Your task to perform on an android device: Go to sound settings Image 0: 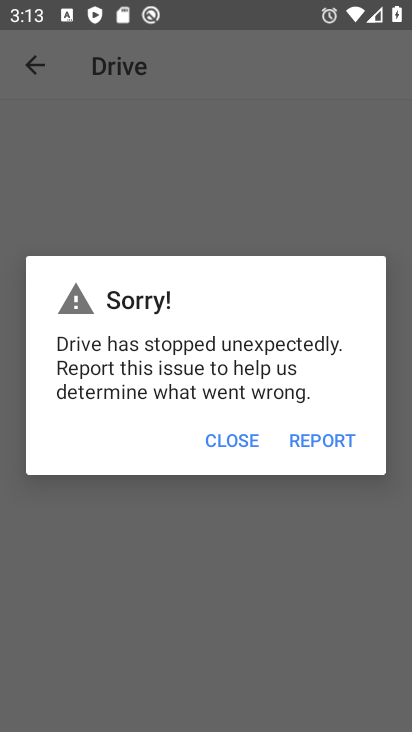
Step 0: click (392, 178)
Your task to perform on an android device: Go to sound settings Image 1: 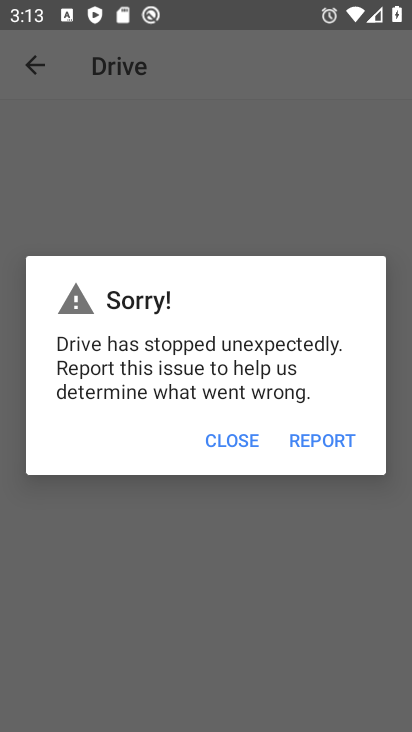
Step 1: click (306, 371)
Your task to perform on an android device: Go to sound settings Image 2: 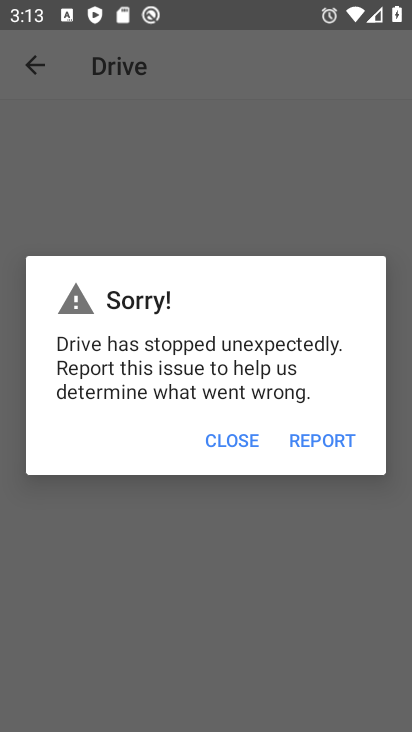
Step 2: click (211, 408)
Your task to perform on an android device: Go to sound settings Image 3: 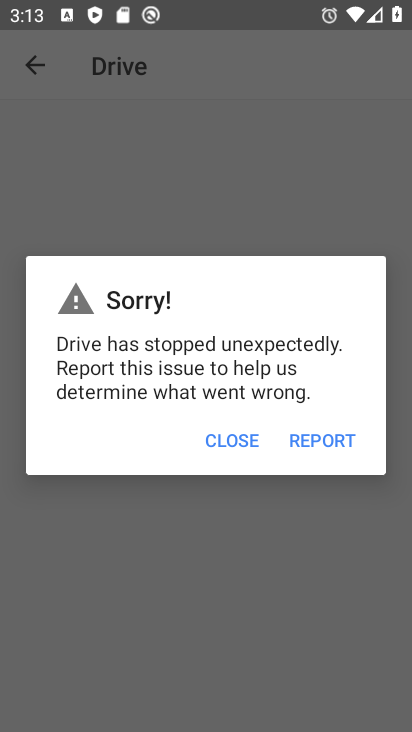
Step 3: click (219, 344)
Your task to perform on an android device: Go to sound settings Image 4: 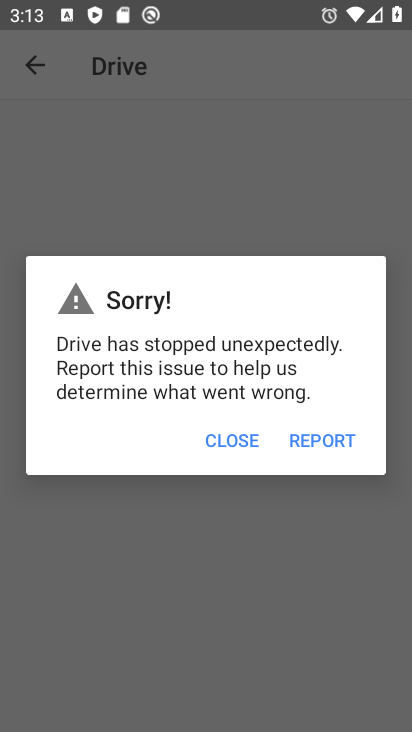
Step 4: press home button
Your task to perform on an android device: Go to sound settings Image 5: 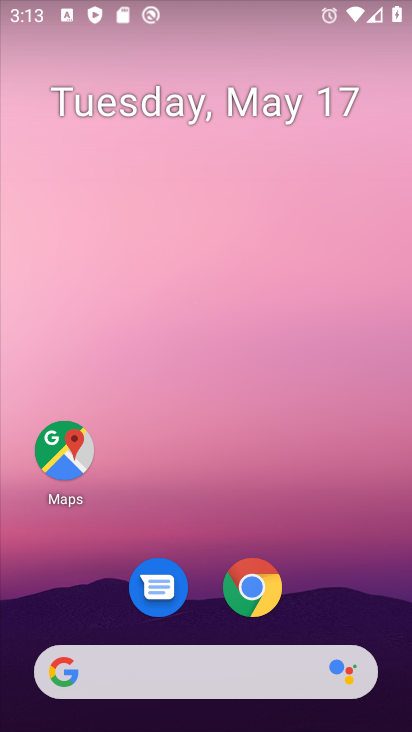
Step 5: drag from (161, 575) to (245, 59)
Your task to perform on an android device: Go to sound settings Image 6: 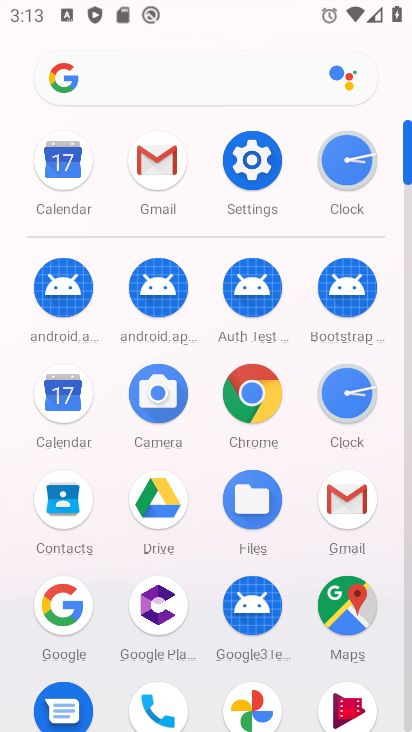
Step 6: click (249, 166)
Your task to perform on an android device: Go to sound settings Image 7: 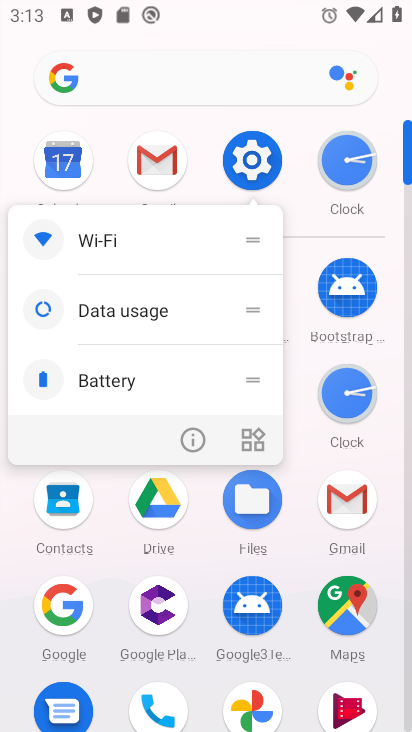
Step 7: click (201, 438)
Your task to perform on an android device: Go to sound settings Image 8: 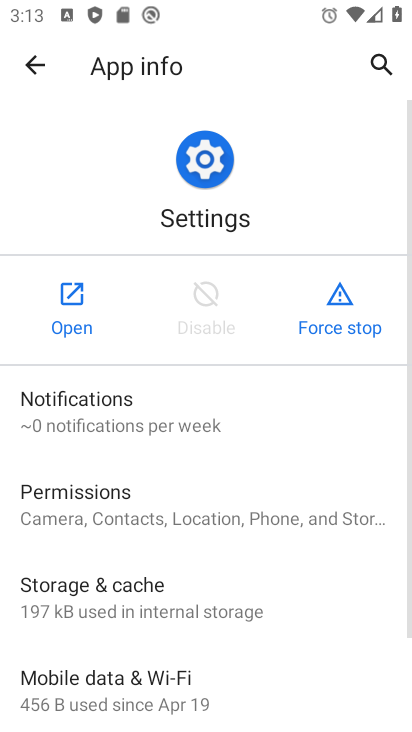
Step 8: click (74, 283)
Your task to perform on an android device: Go to sound settings Image 9: 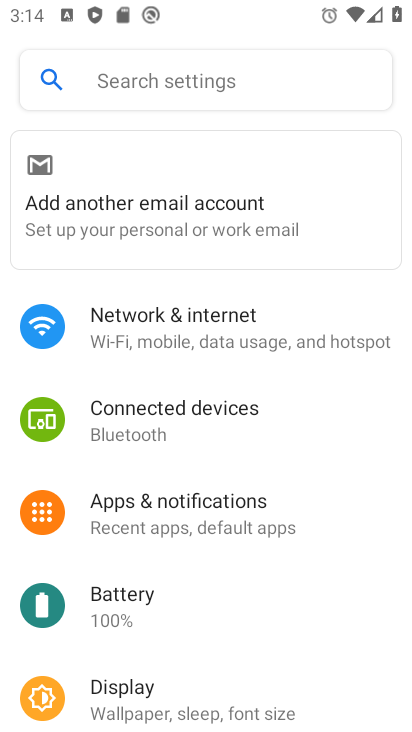
Step 9: drag from (216, 556) to (308, 169)
Your task to perform on an android device: Go to sound settings Image 10: 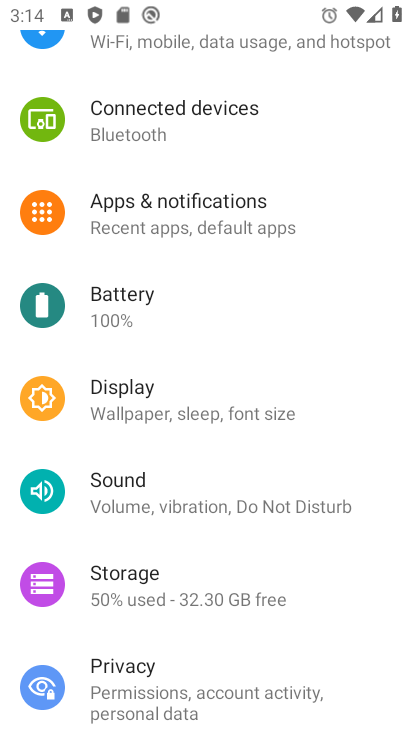
Step 10: click (199, 489)
Your task to perform on an android device: Go to sound settings Image 11: 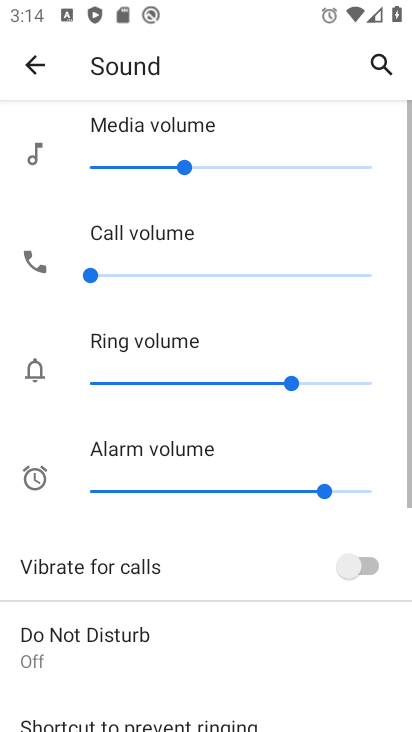
Step 11: task complete